Your task to perform on an android device: turn off wifi Image 0: 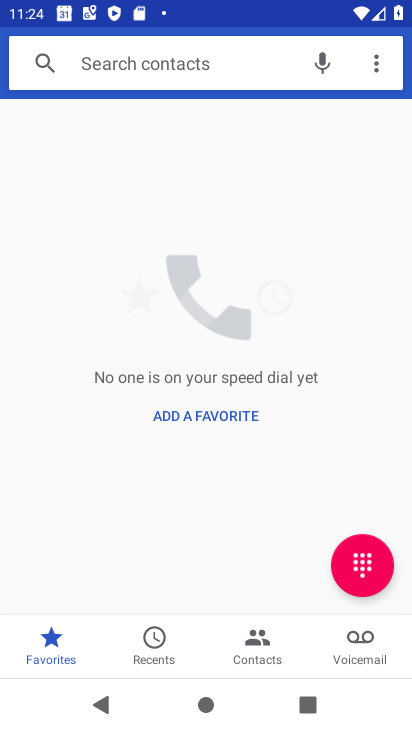
Step 0: press home button
Your task to perform on an android device: turn off wifi Image 1: 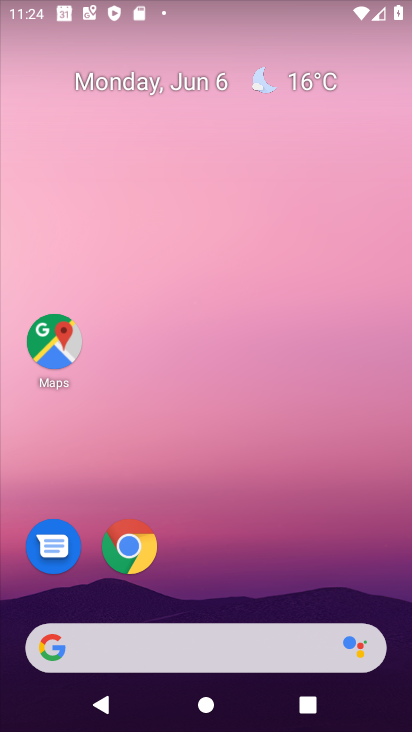
Step 1: drag from (354, 471) to (333, 138)
Your task to perform on an android device: turn off wifi Image 2: 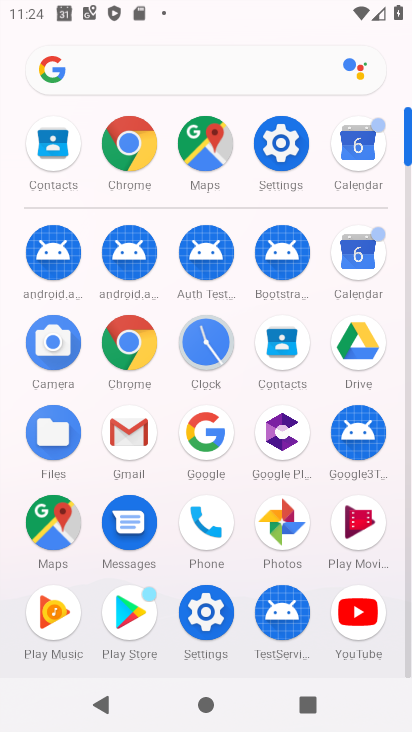
Step 2: click (287, 148)
Your task to perform on an android device: turn off wifi Image 3: 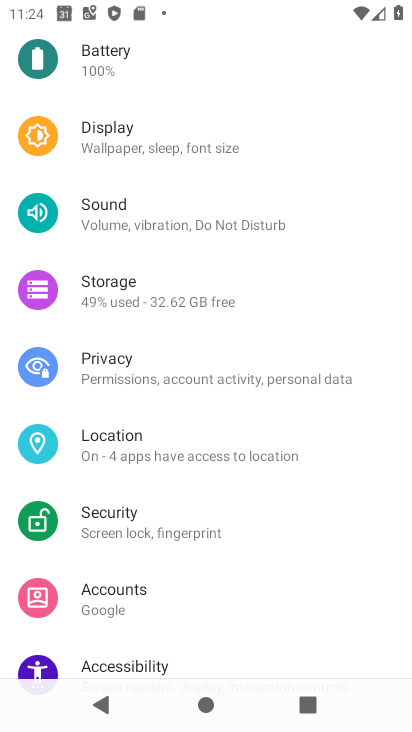
Step 3: drag from (220, 176) to (212, 563)
Your task to perform on an android device: turn off wifi Image 4: 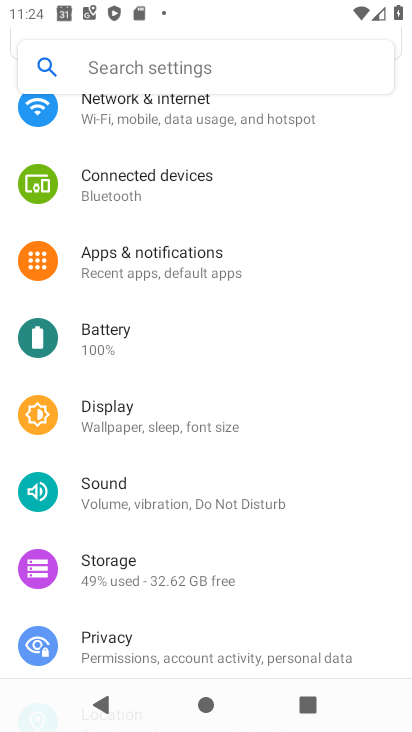
Step 4: click (206, 127)
Your task to perform on an android device: turn off wifi Image 5: 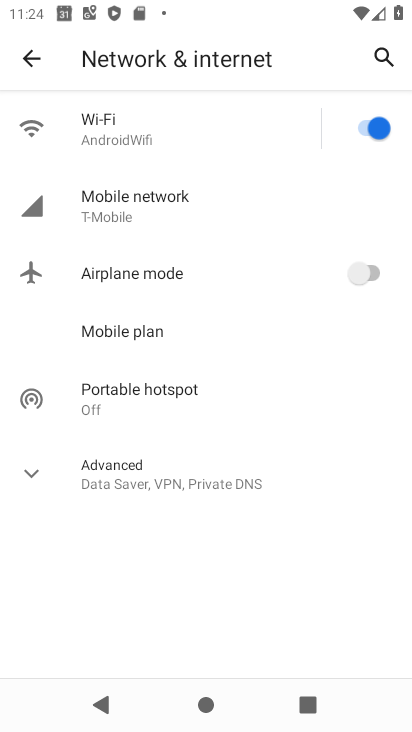
Step 5: click (371, 132)
Your task to perform on an android device: turn off wifi Image 6: 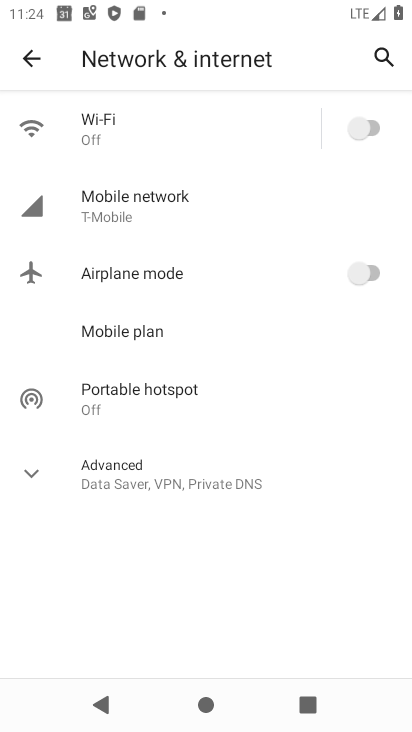
Step 6: task complete